Your task to perform on an android device: Do I have any events tomorrow? Image 0: 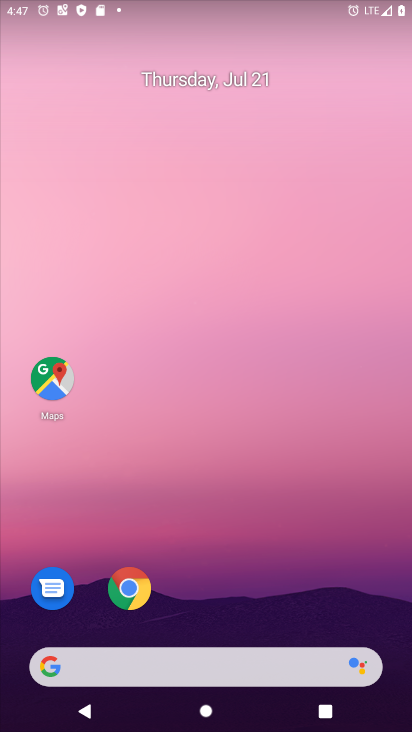
Step 0: drag from (209, 608) to (314, 24)
Your task to perform on an android device: Do I have any events tomorrow? Image 1: 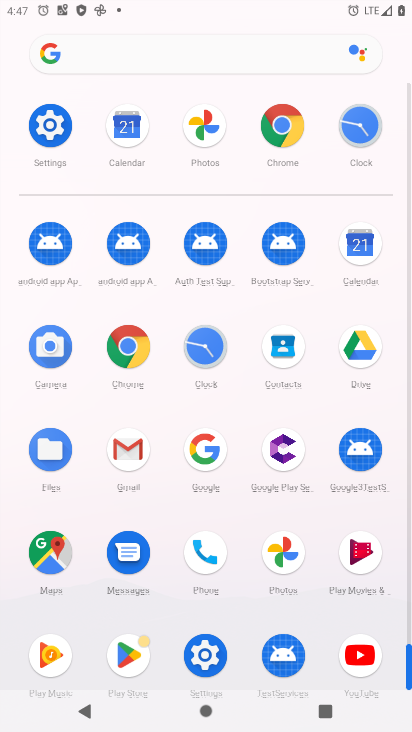
Step 1: click (347, 273)
Your task to perform on an android device: Do I have any events tomorrow? Image 2: 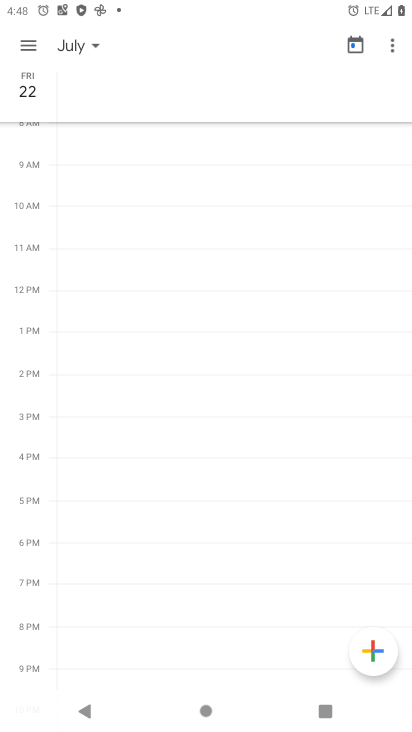
Step 2: click (85, 59)
Your task to perform on an android device: Do I have any events tomorrow? Image 3: 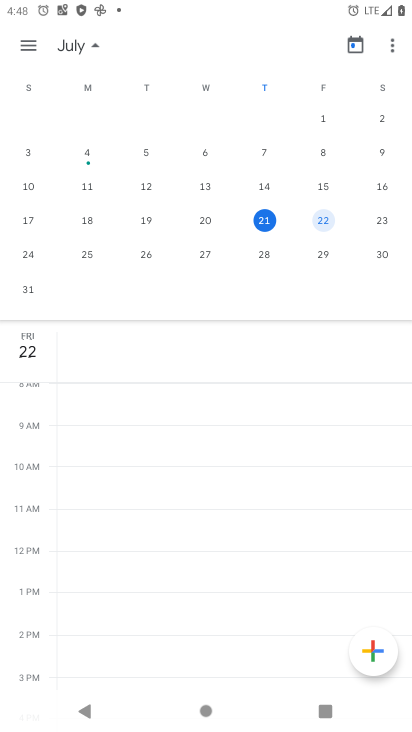
Step 3: click (318, 224)
Your task to perform on an android device: Do I have any events tomorrow? Image 4: 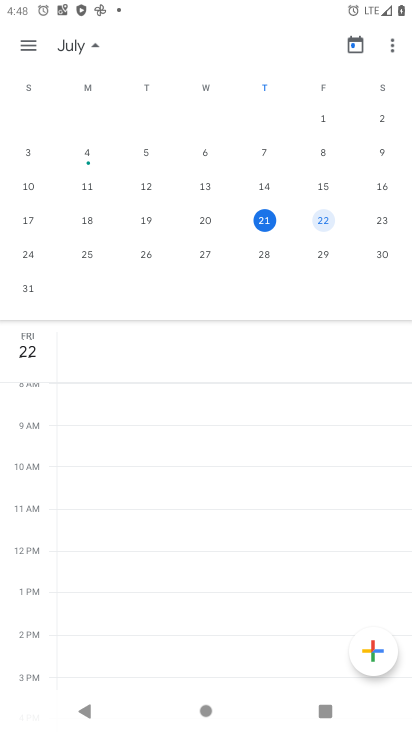
Step 4: task complete